Your task to perform on an android device: Open calendar and show me the fourth week of next month Image 0: 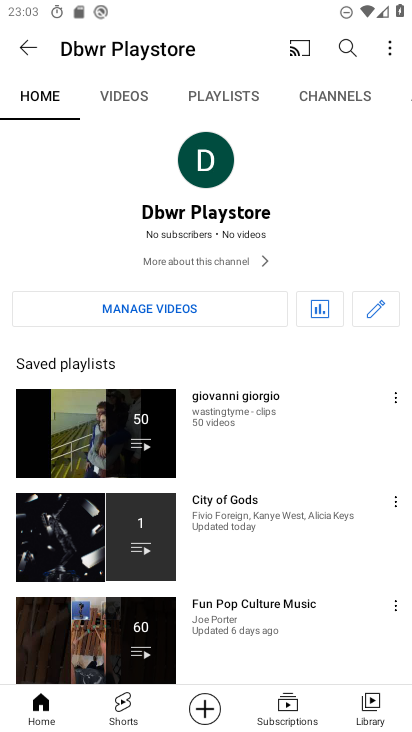
Step 0: press home button
Your task to perform on an android device: Open calendar and show me the fourth week of next month Image 1: 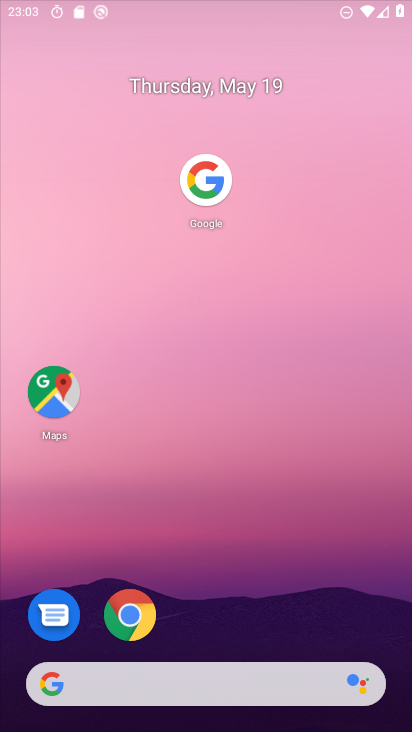
Step 1: drag from (253, 574) to (254, 58)
Your task to perform on an android device: Open calendar and show me the fourth week of next month Image 2: 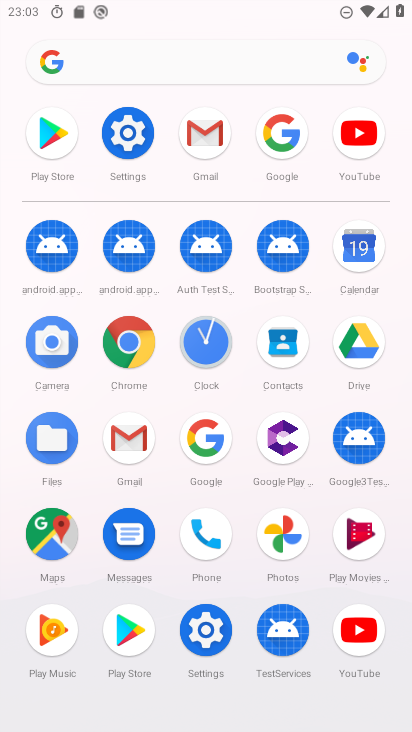
Step 2: click (359, 241)
Your task to perform on an android device: Open calendar and show me the fourth week of next month Image 3: 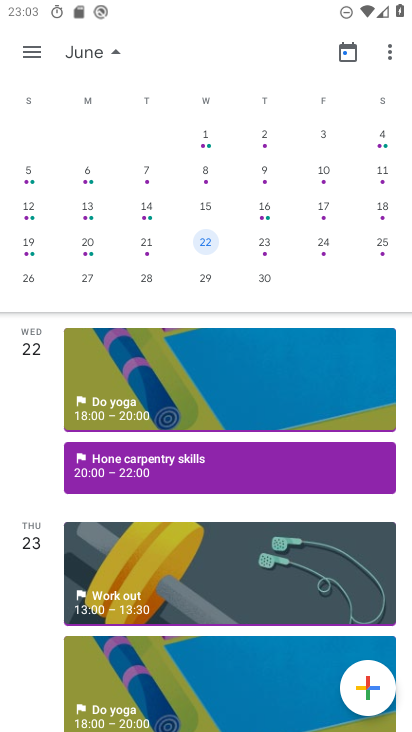
Step 3: click (263, 243)
Your task to perform on an android device: Open calendar and show me the fourth week of next month Image 4: 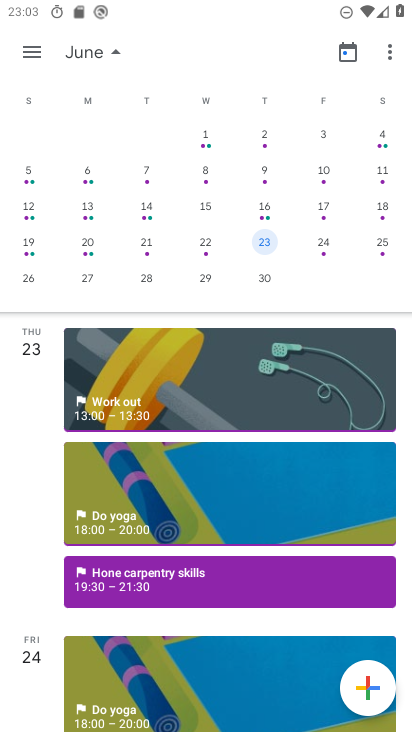
Step 4: task complete